Your task to perform on an android device: check data usage Image 0: 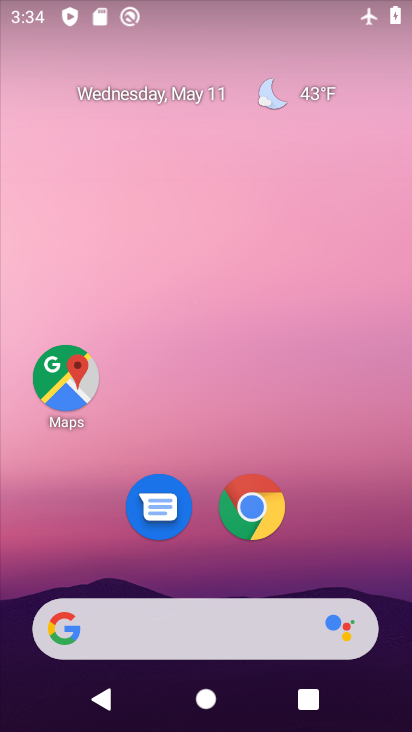
Step 0: drag from (404, 636) to (324, 212)
Your task to perform on an android device: check data usage Image 1: 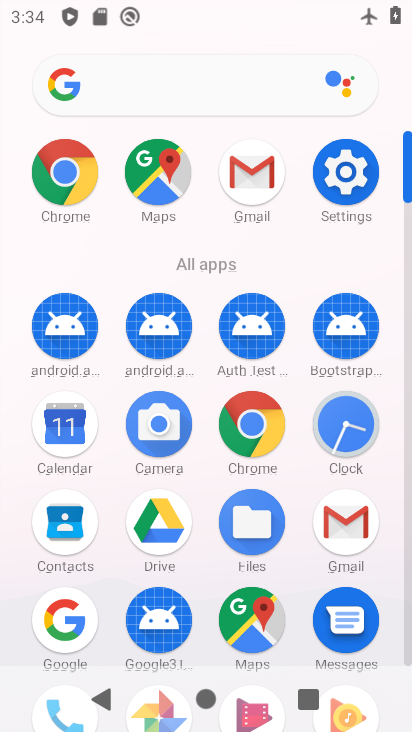
Step 1: click (406, 651)
Your task to perform on an android device: check data usage Image 2: 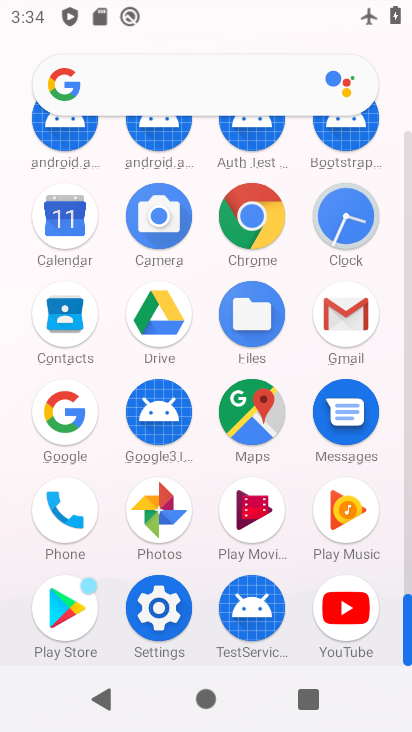
Step 2: click (154, 606)
Your task to perform on an android device: check data usage Image 3: 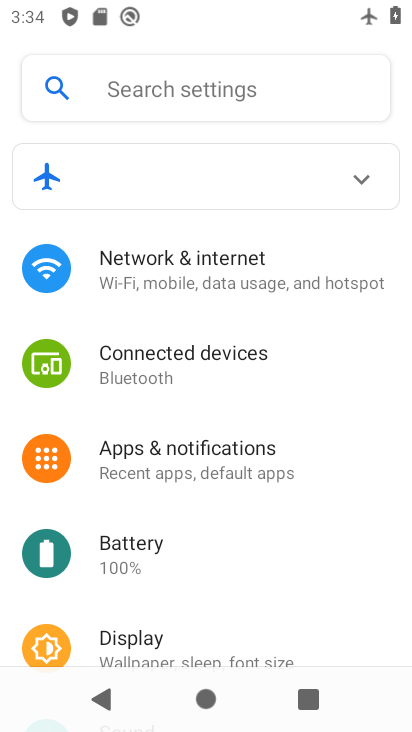
Step 3: click (168, 254)
Your task to perform on an android device: check data usage Image 4: 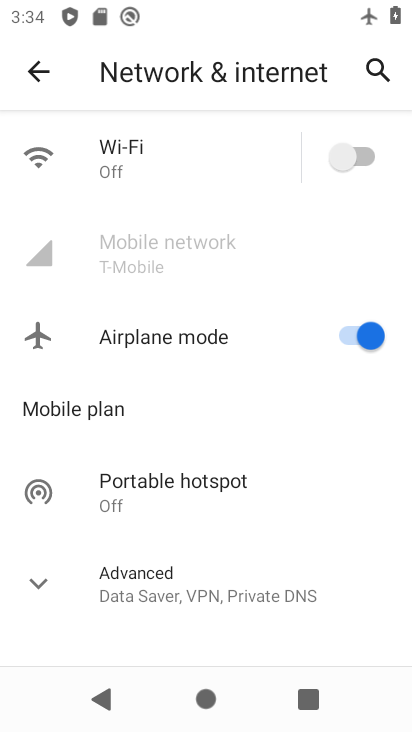
Step 4: task complete